Your task to perform on an android device: change notification settings in the gmail app Image 0: 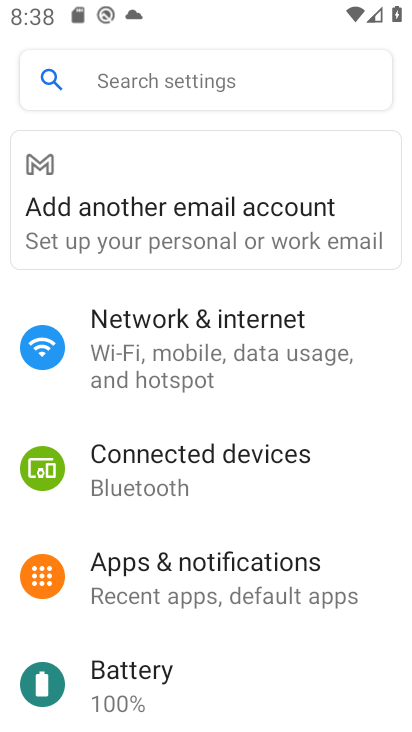
Step 0: press home button
Your task to perform on an android device: change notification settings in the gmail app Image 1: 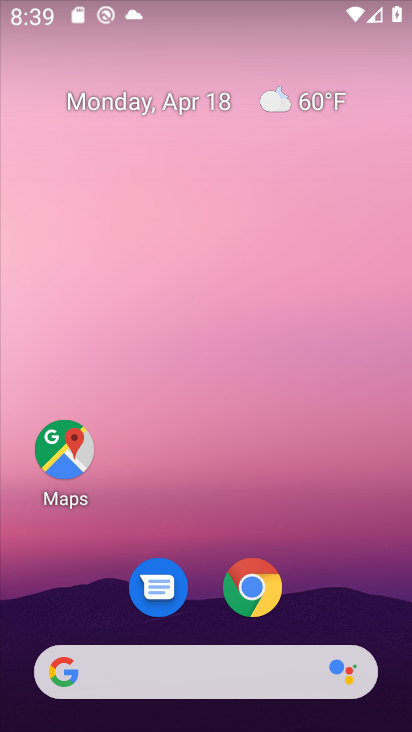
Step 1: drag from (345, 574) to (271, 59)
Your task to perform on an android device: change notification settings in the gmail app Image 2: 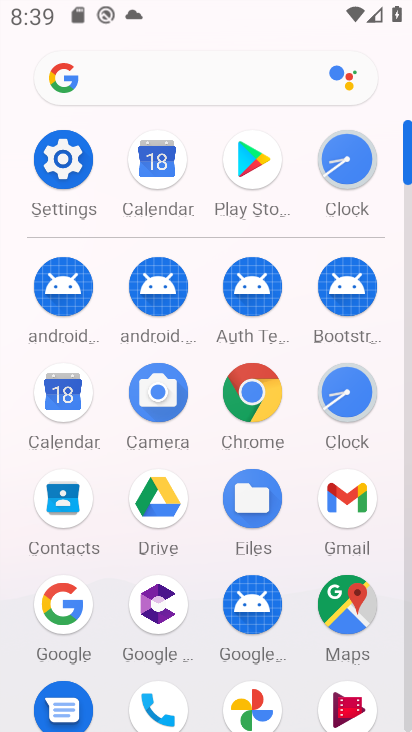
Step 2: click (350, 533)
Your task to perform on an android device: change notification settings in the gmail app Image 3: 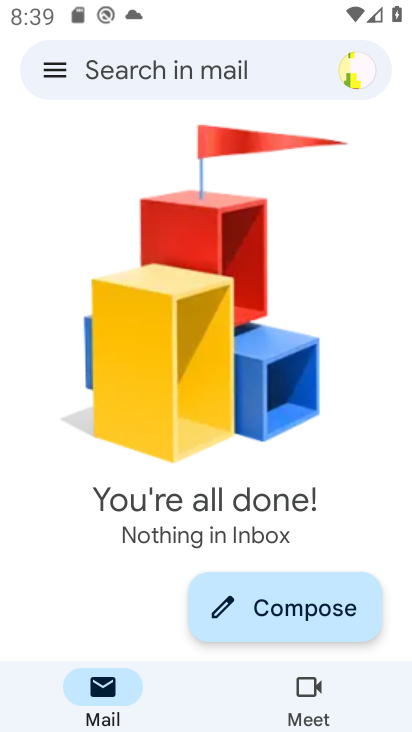
Step 3: click (55, 78)
Your task to perform on an android device: change notification settings in the gmail app Image 4: 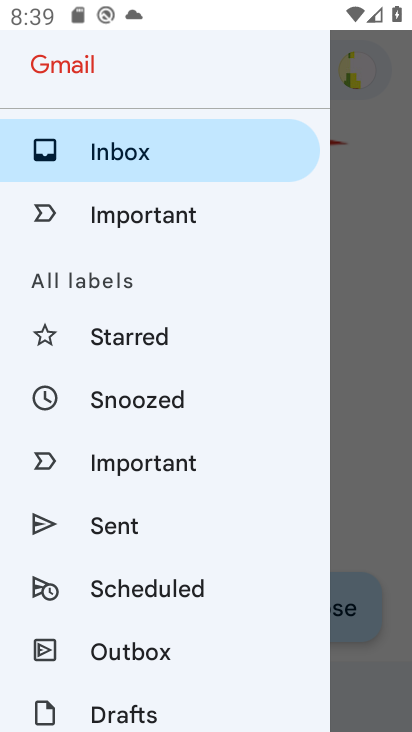
Step 4: drag from (154, 630) to (163, 321)
Your task to perform on an android device: change notification settings in the gmail app Image 5: 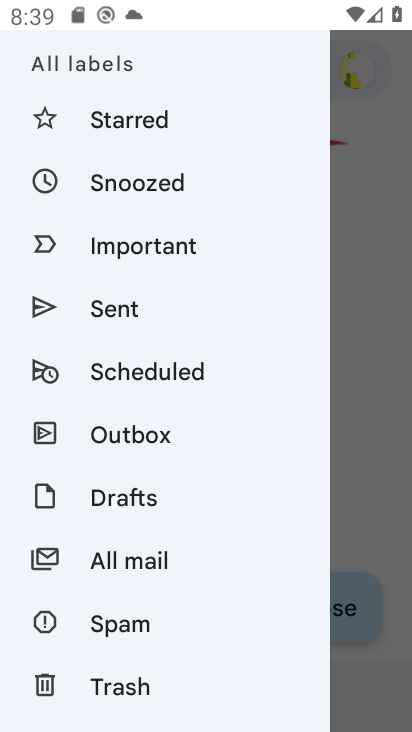
Step 5: drag from (176, 559) to (191, 172)
Your task to perform on an android device: change notification settings in the gmail app Image 6: 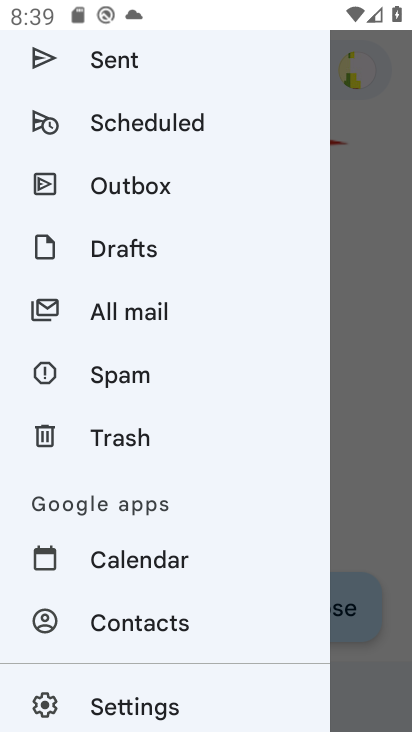
Step 6: click (156, 686)
Your task to perform on an android device: change notification settings in the gmail app Image 7: 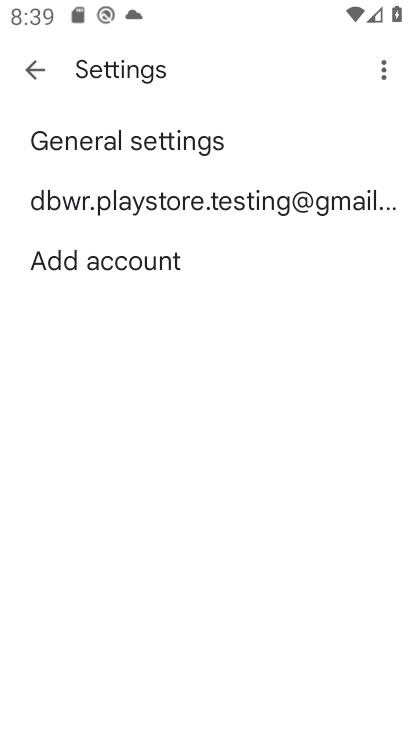
Step 7: click (154, 138)
Your task to perform on an android device: change notification settings in the gmail app Image 8: 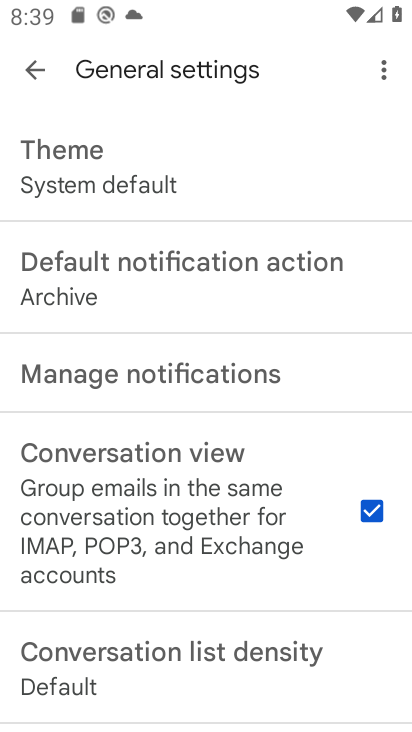
Step 8: click (108, 390)
Your task to perform on an android device: change notification settings in the gmail app Image 9: 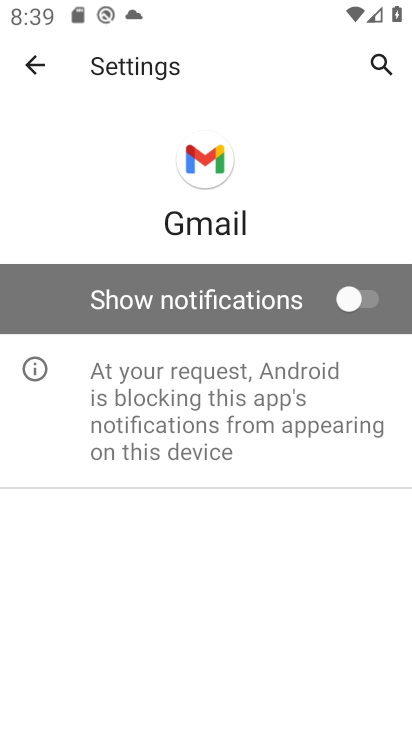
Step 9: click (319, 305)
Your task to perform on an android device: change notification settings in the gmail app Image 10: 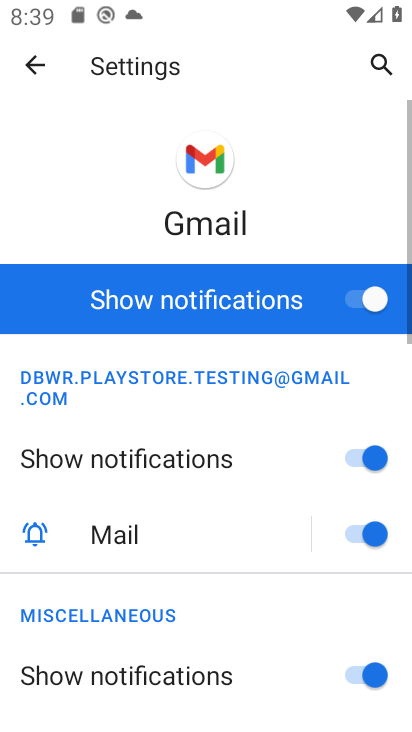
Step 10: task complete